Your task to perform on an android device: open app "YouTube Kids" (install if not already installed) and enter user name: "atmospheric@gmail.com" and password: "raze" Image 0: 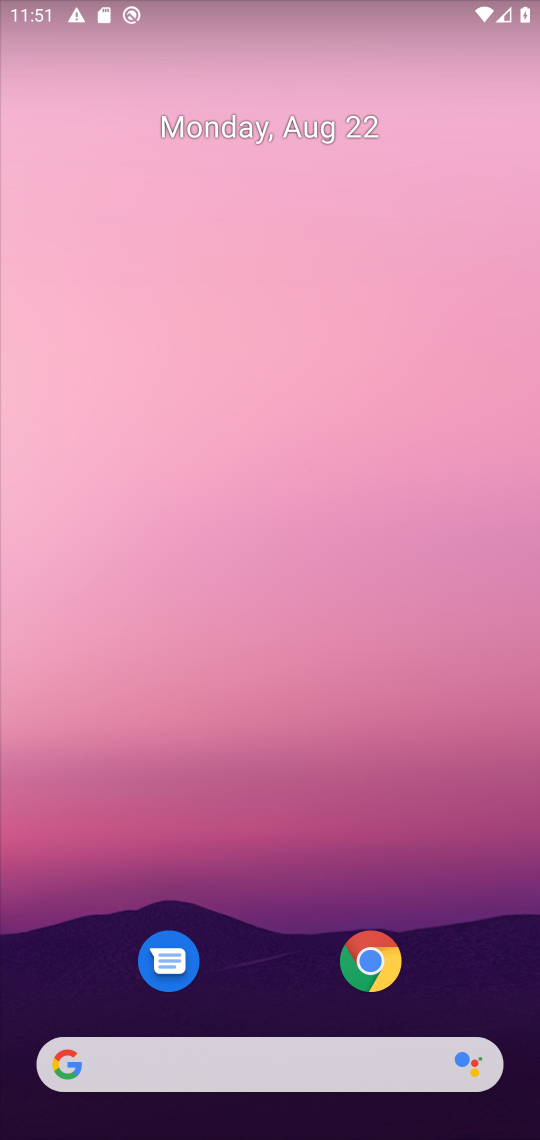
Step 0: drag from (278, 999) to (304, 194)
Your task to perform on an android device: open app "YouTube Kids" (install if not already installed) and enter user name: "atmospheric@gmail.com" and password: "raze" Image 1: 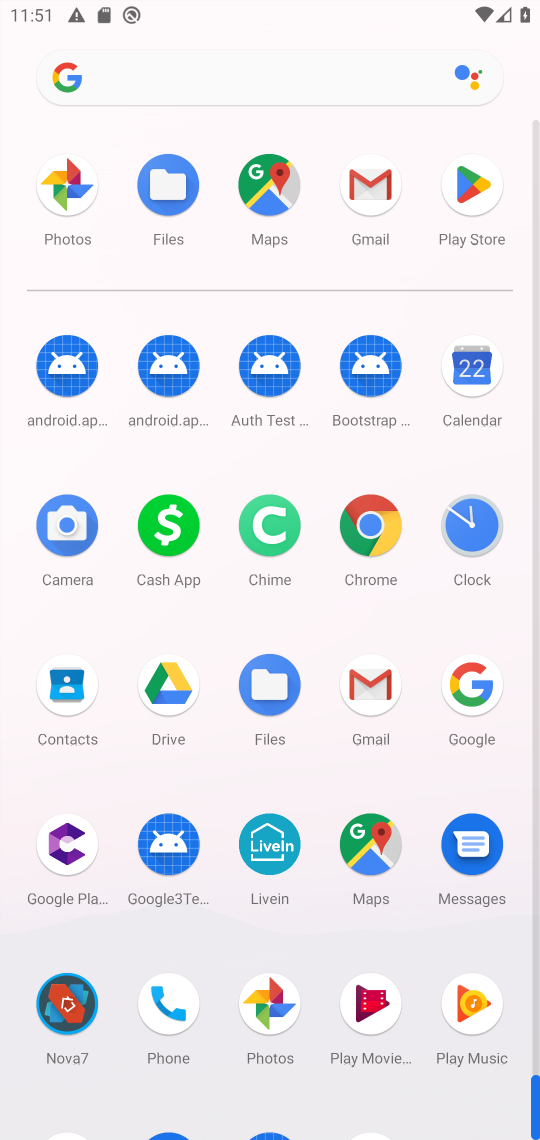
Step 1: click (363, 172)
Your task to perform on an android device: open app "YouTube Kids" (install if not already installed) and enter user name: "atmospheric@gmail.com" and password: "raze" Image 2: 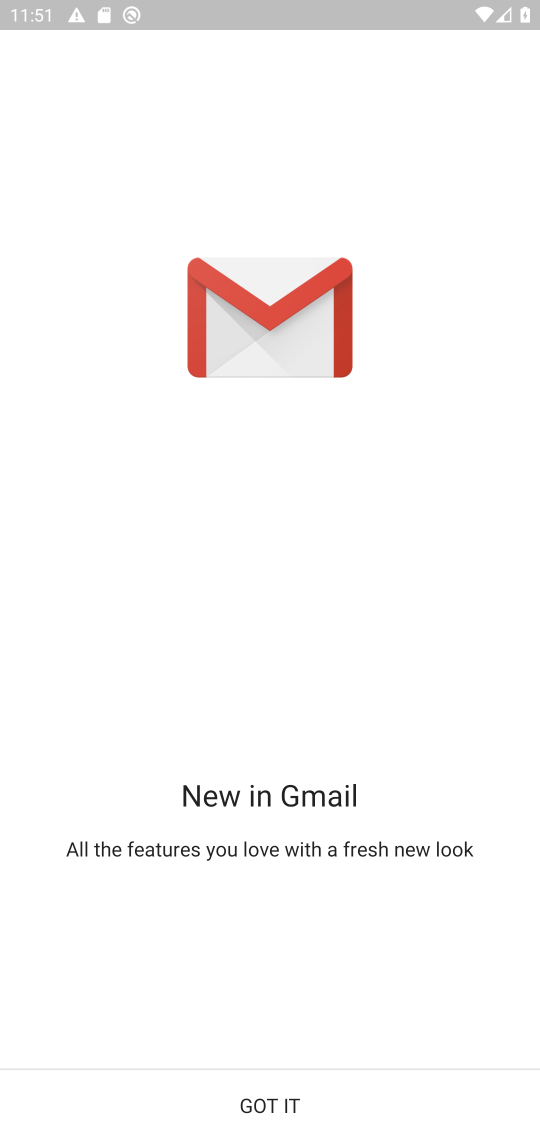
Step 2: click (230, 1123)
Your task to perform on an android device: open app "YouTube Kids" (install if not already installed) and enter user name: "atmospheric@gmail.com" and password: "raze" Image 3: 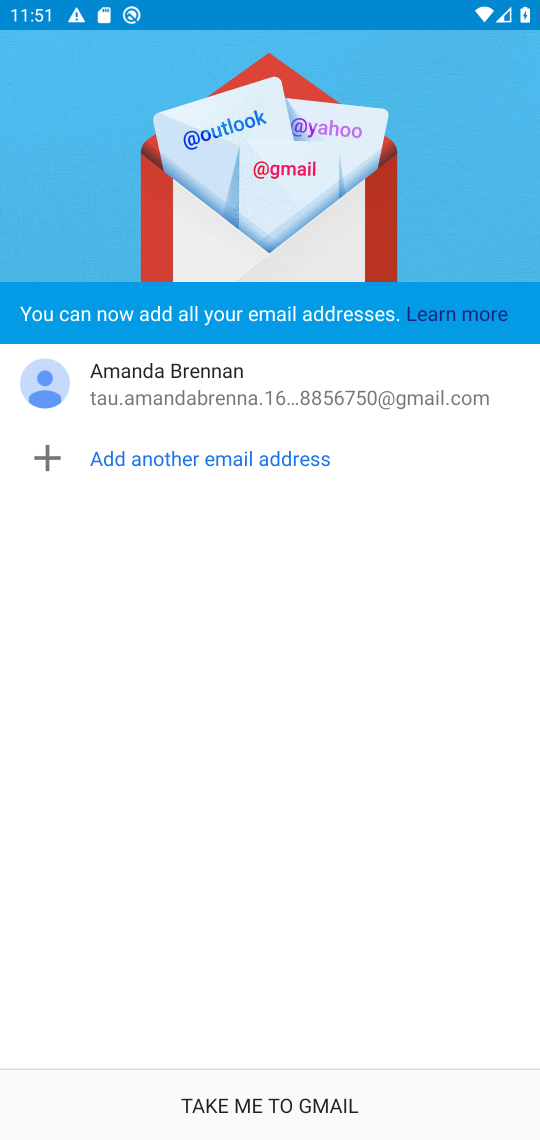
Step 3: press home button
Your task to perform on an android device: open app "YouTube Kids" (install if not already installed) and enter user name: "atmospheric@gmail.com" and password: "raze" Image 4: 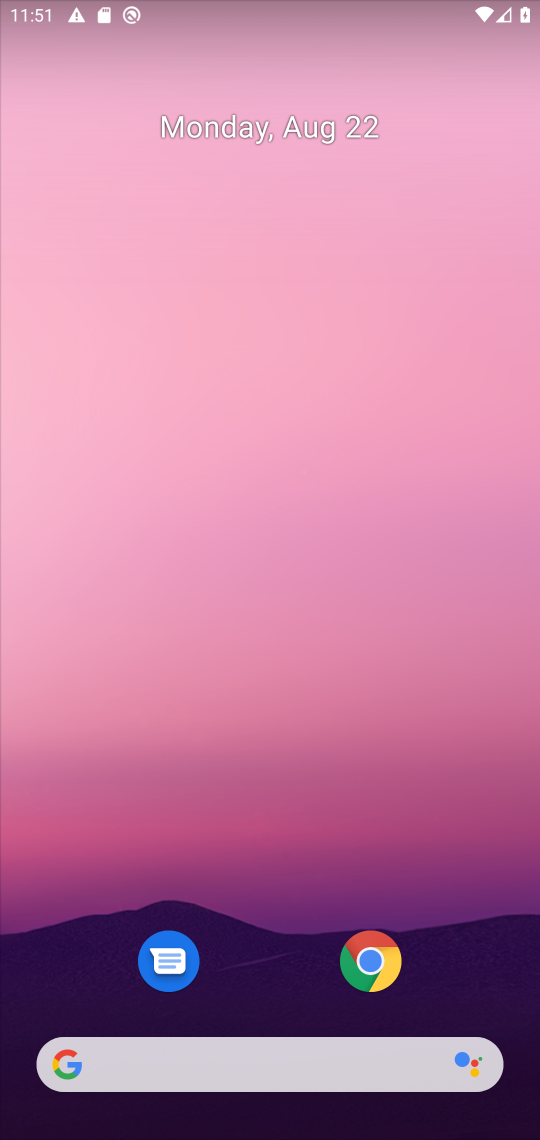
Step 4: drag from (292, 1009) to (315, 340)
Your task to perform on an android device: open app "YouTube Kids" (install if not already installed) and enter user name: "atmospheric@gmail.com" and password: "raze" Image 5: 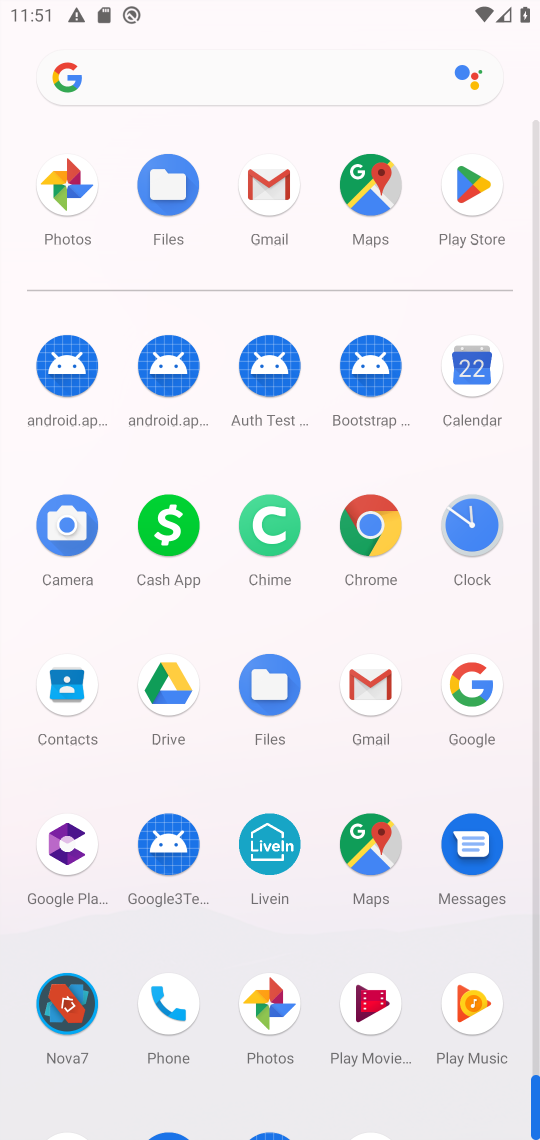
Step 5: click (459, 190)
Your task to perform on an android device: open app "YouTube Kids" (install if not already installed) and enter user name: "atmospheric@gmail.com" and password: "raze" Image 6: 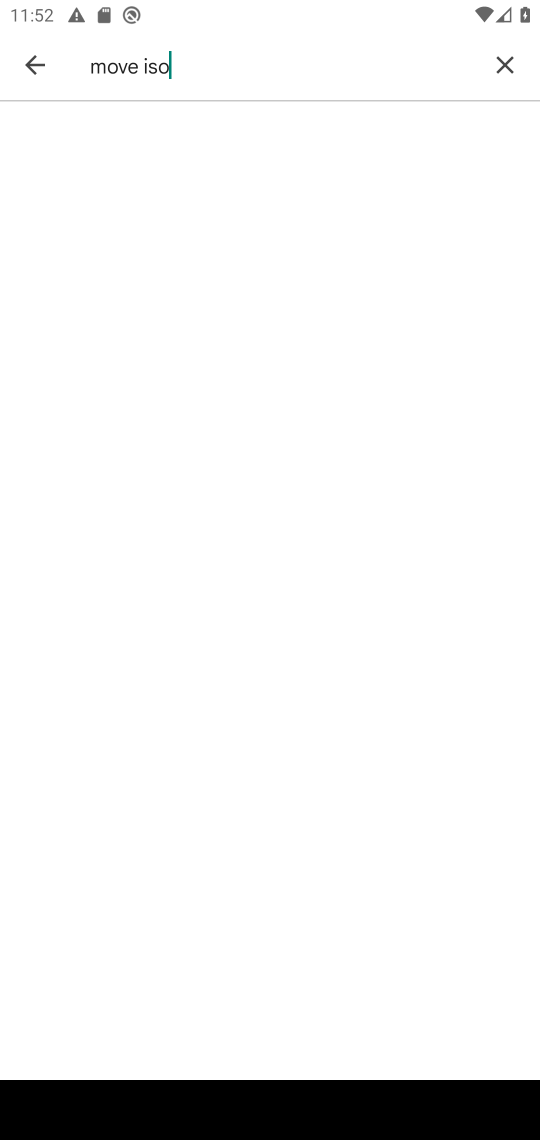
Step 6: press home button
Your task to perform on an android device: open app "YouTube Kids" (install if not already installed) and enter user name: "atmospheric@gmail.com" and password: "raze" Image 7: 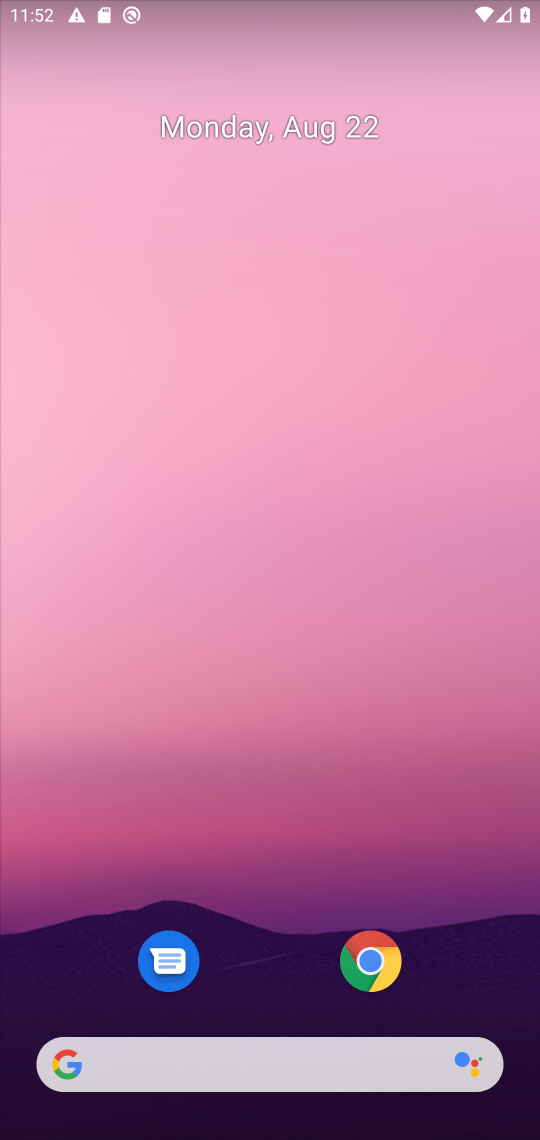
Step 7: drag from (271, 997) to (295, 16)
Your task to perform on an android device: open app "YouTube Kids" (install if not already installed) and enter user name: "atmospheric@gmail.com" and password: "raze" Image 8: 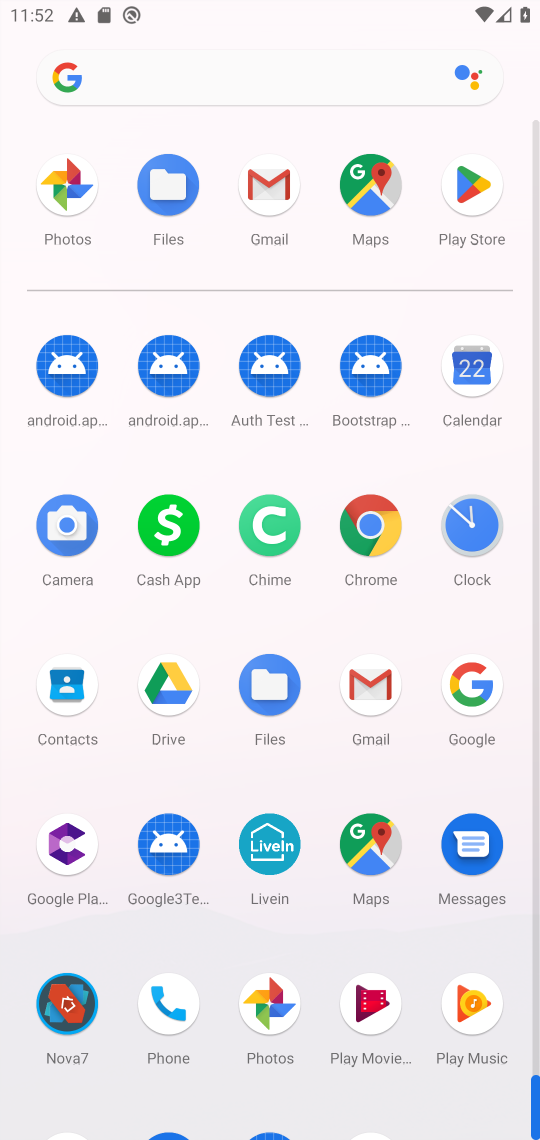
Step 8: click (464, 226)
Your task to perform on an android device: open app "YouTube Kids" (install if not already installed) and enter user name: "atmospheric@gmail.com" and password: "raze" Image 9: 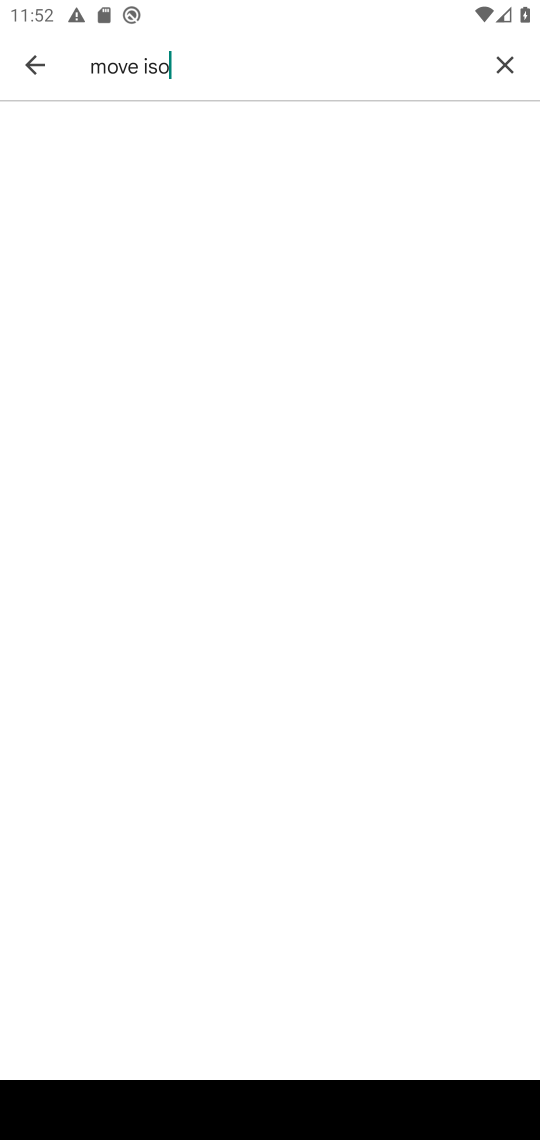
Step 9: click (523, 59)
Your task to perform on an android device: open app "YouTube Kids" (install if not already installed) and enter user name: "atmospheric@gmail.com" and password: "raze" Image 10: 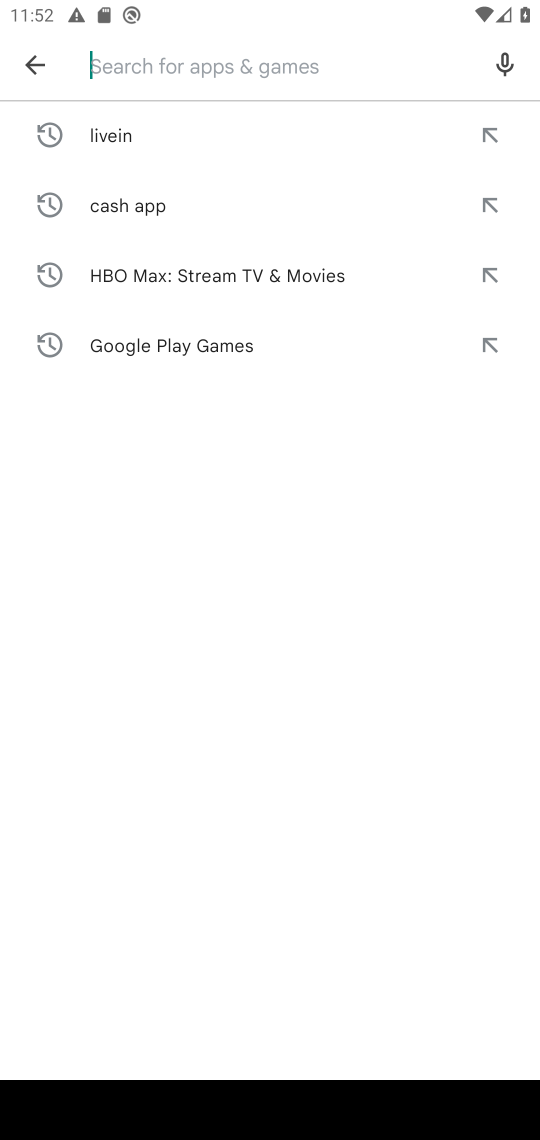
Step 10: type "youtube kid"
Your task to perform on an android device: open app "YouTube Kids" (install if not already installed) and enter user name: "atmospheric@gmail.com" and password: "raze" Image 11: 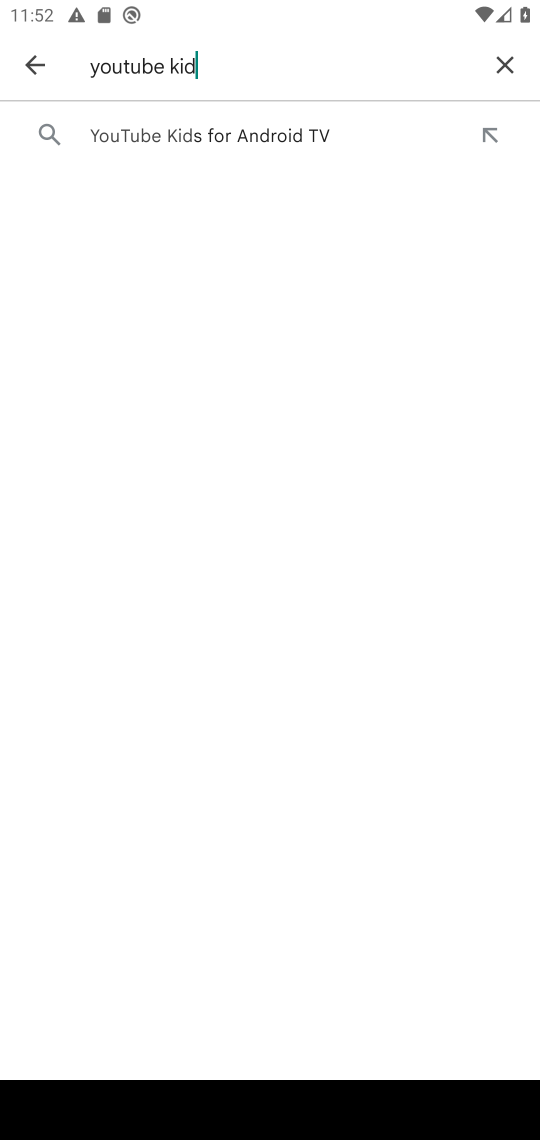
Step 11: click (99, 142)
Your task to perform on an android device: open app "YouTube Kids" (install if not already installed) and enter user name: "atmospheric@gmail.com" and password: "raze" Image 12: 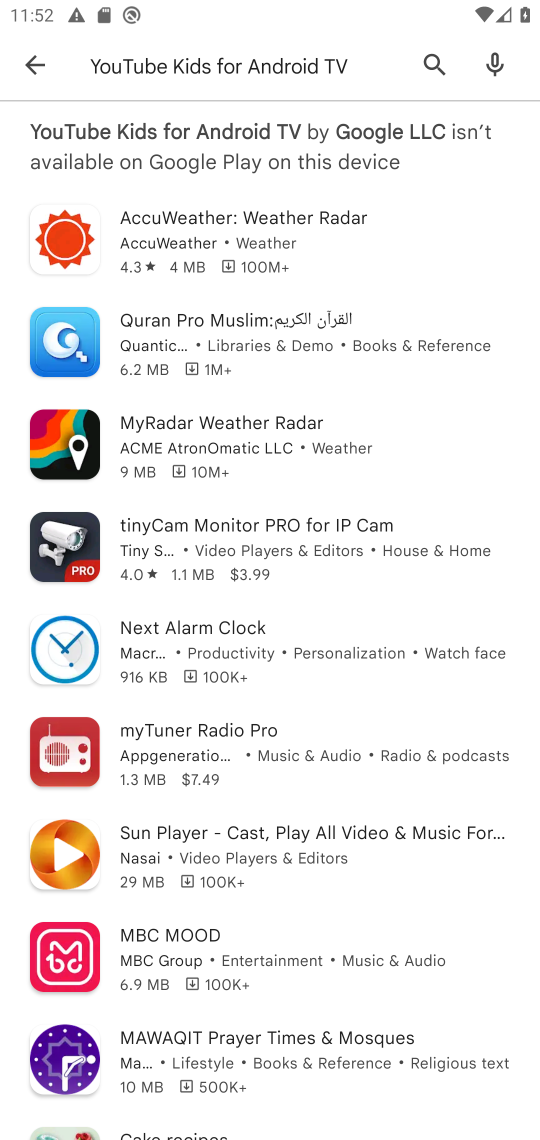
Step 12: task complete